Your task to perform on an android device: open sync settings in chrome Image 0: 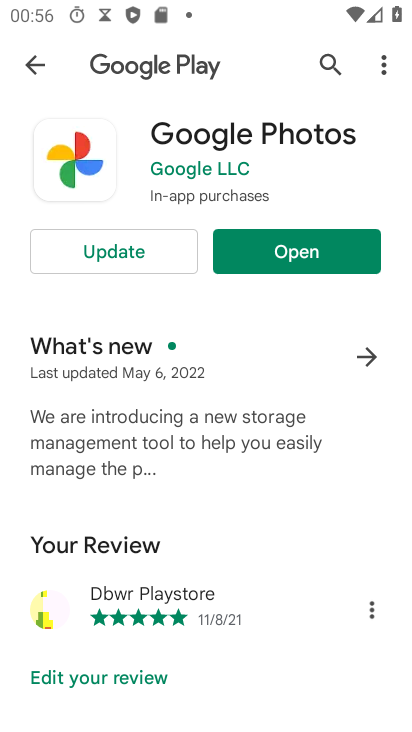
Step 0: press home button
Your task to perform on an android device: open sync settings in chrome Image 1: 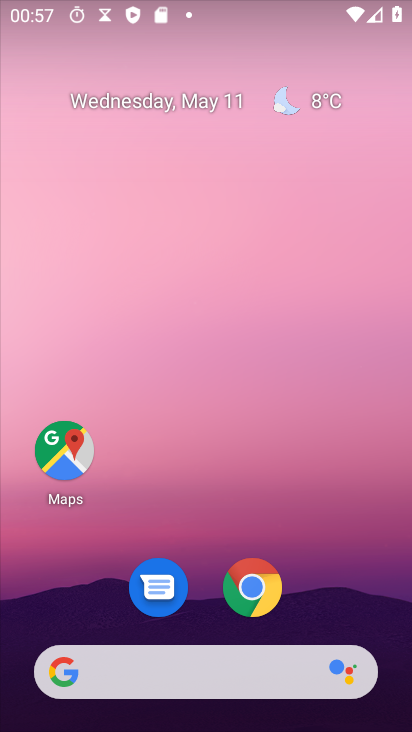
Step 1: drag from (294, 583) to (109, 99)
Your task to perform on an android device: open sync settings in chrome Image 2: 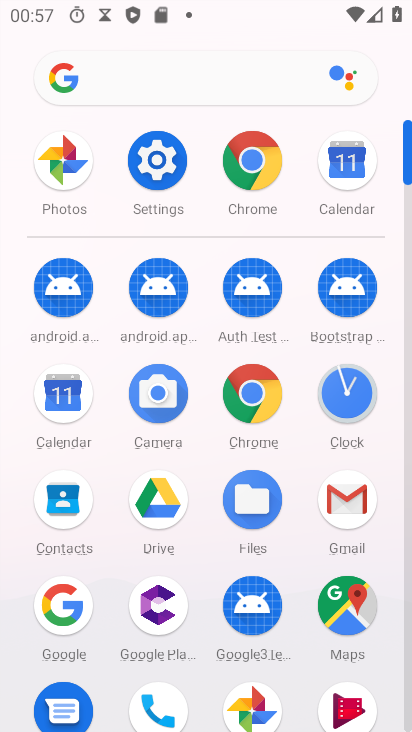
Step 2: click (250, 170)
Your task to perform on an android device: open sync settings in chrome Image 3: 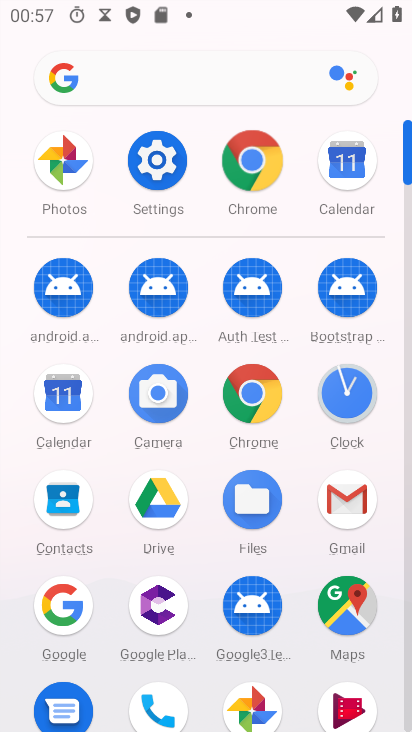
Step 3: click (250, 170)
Your task to perform on an android device: open sync settings in chrome Image 4: 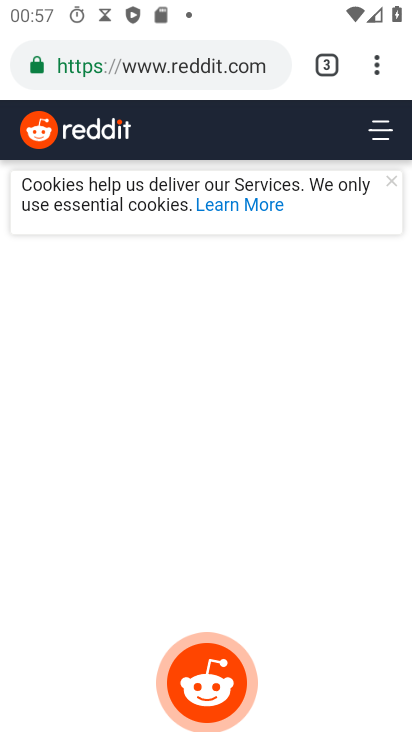
Step 4: drag from (375, 54) to (137, 639)
Your task to perform on an android device: open sync settings in chrome Image 5: 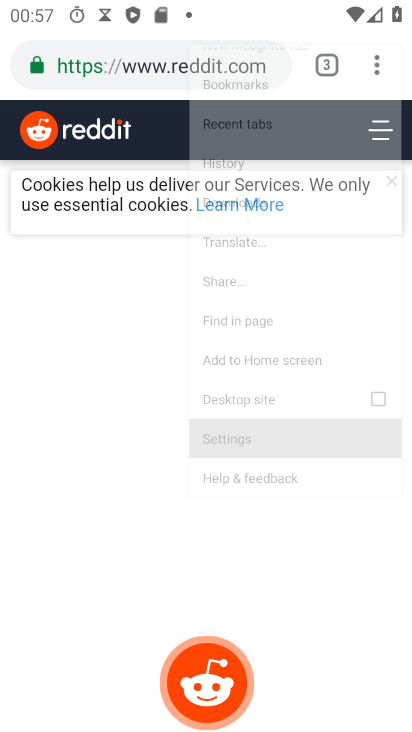
Step 5: click (137, 639)
Your task to perform on an android device: open sync settings in chrome Image 6: 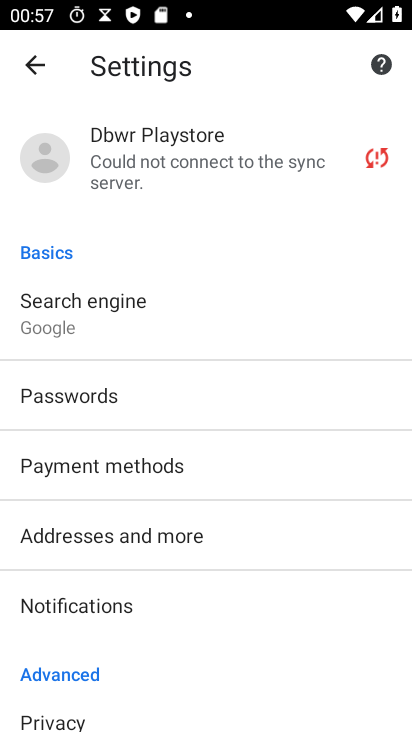
Step 6: drag from (206, 542) to (176, 256)
Your task to perform on an android device: open sync settings in chrome Image 7: 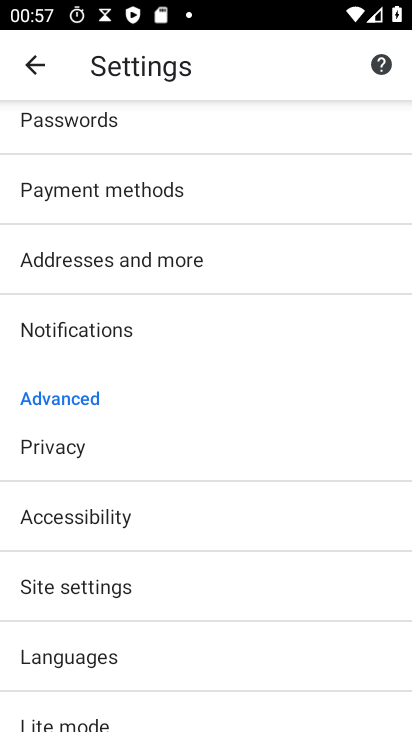
Step 7: drag from (124, 598) to (128, 182)
Your task to perform on an android device: open sync settings in chrome Image 8: 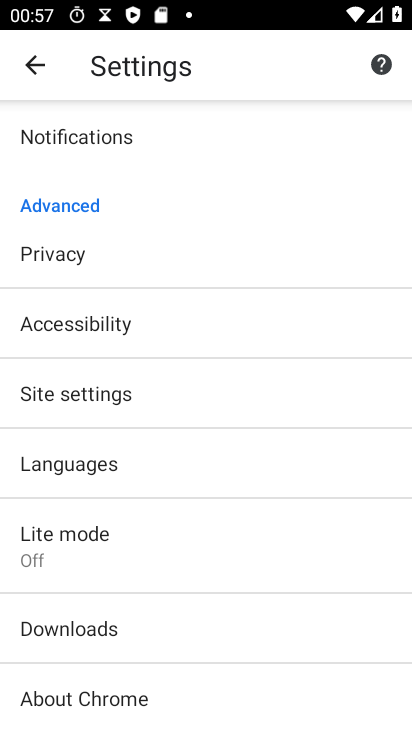
Step 8: click (58, 401)
Your task to perform on an android device: open sync settings in chrome Image 9: 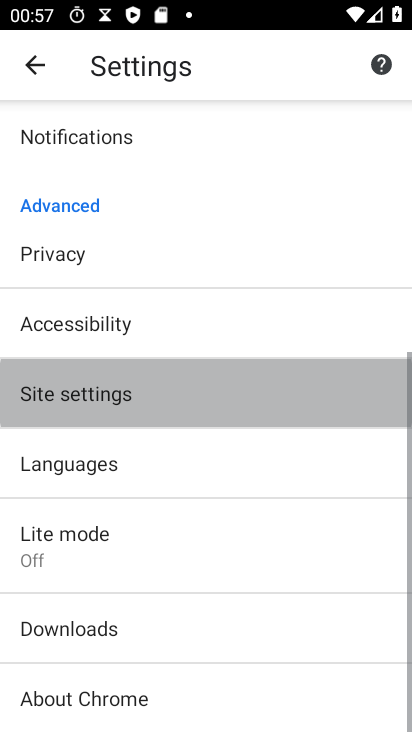
Step 9: click (61, 395)
Your task to perform on an android device: open sync settings in chrome Image 10: 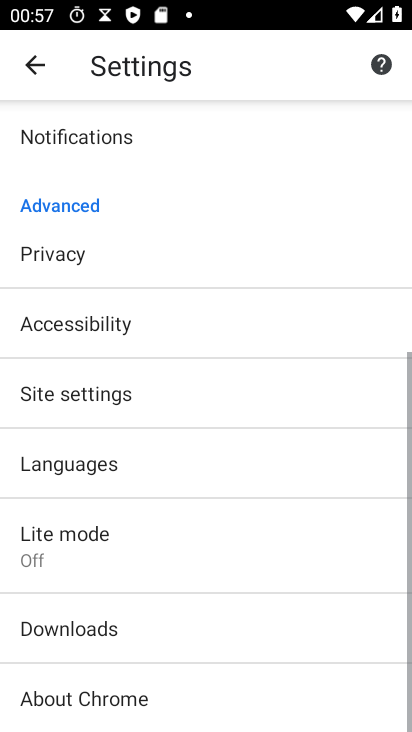
Step 10: click (62, 395)
Your task to perform on an android device: open sync settings in chrome Image 11: 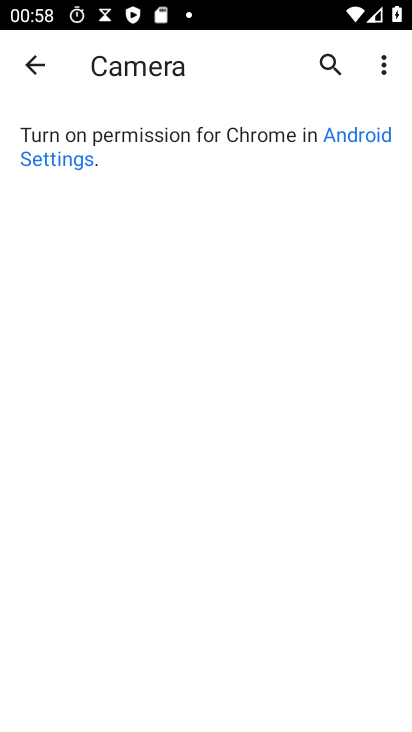
Step 11: click (34, 66)
Your task to perform on an android device: open sync settings in chrome Image 12: 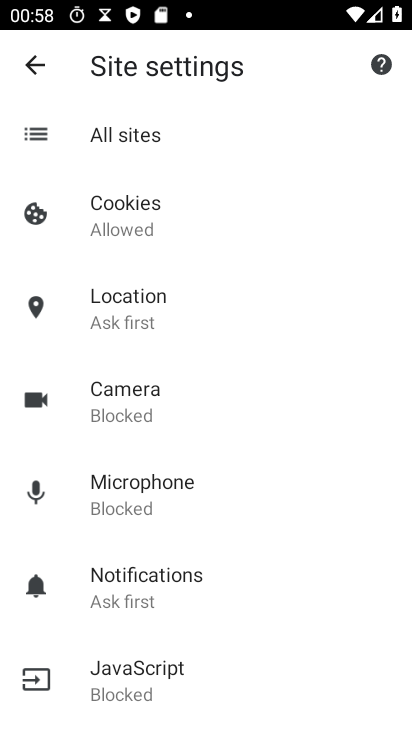
Step 12: drag from (128, 624) to (67, 159)
Your task to perform on an android device: open sync settings in chrome Image 13: 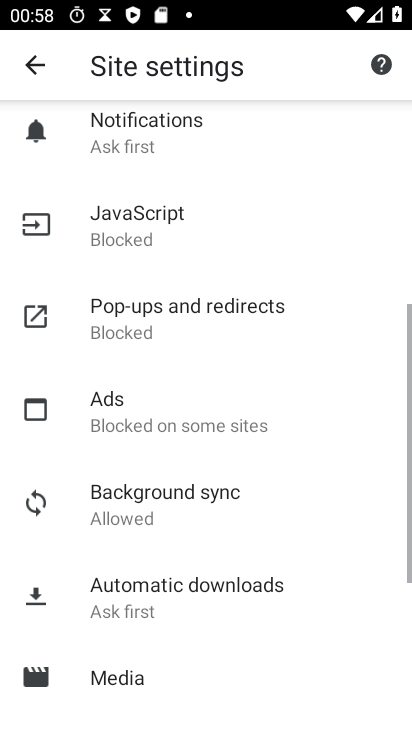
Step 13: drag from (118, 496) to (109, 289)
Your task to perform on an android device: open sync settings in chrome Image 14: 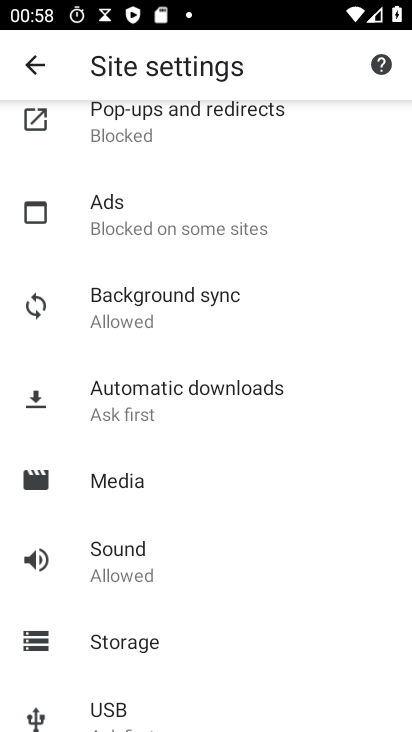
Step 14: click (136, 306)
Your task to perform on an android device: open sync settings in chrome Image 15: 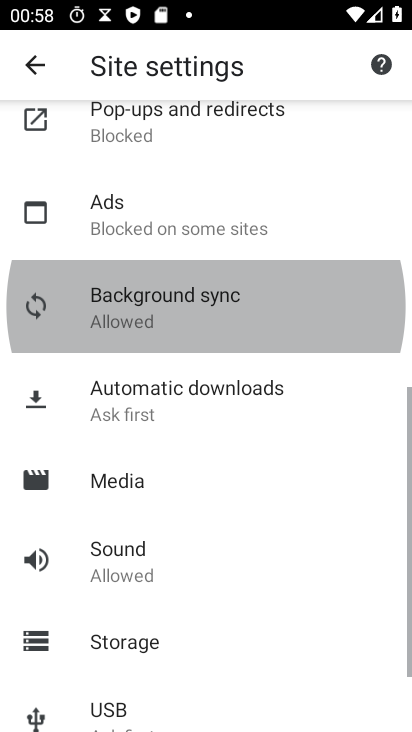
Step 15: click (136, 306)
Your task to perform on an android device: open sync settings in chrome Image 16: 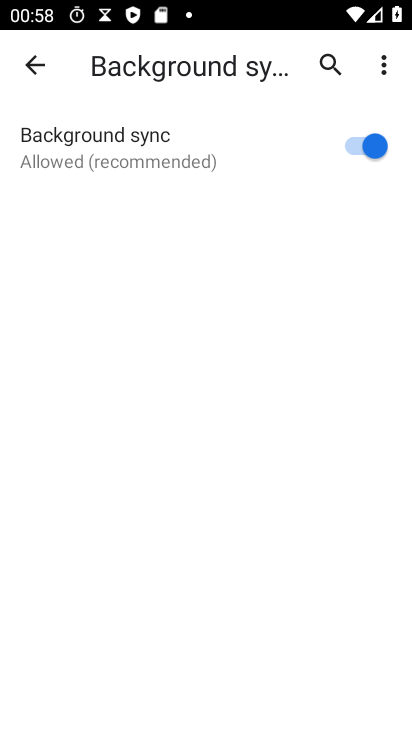
Step 16: task complete